Your task to perform on an android device: turn on javascript in the chrome app Image 0: 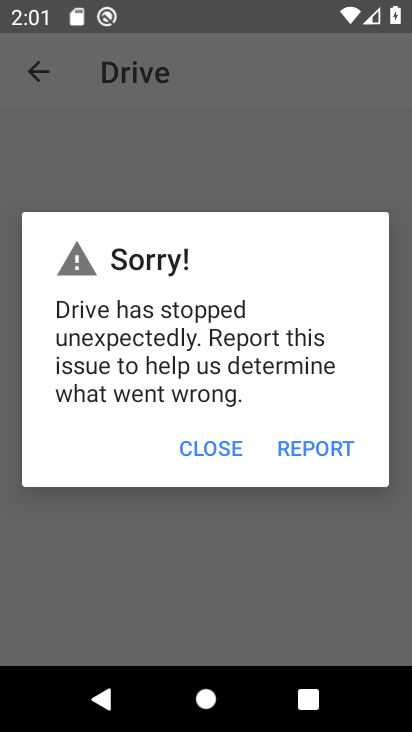
Step 0: press home button
Your task to perform on an android device: turn on javascript in the chrome app Image 1: 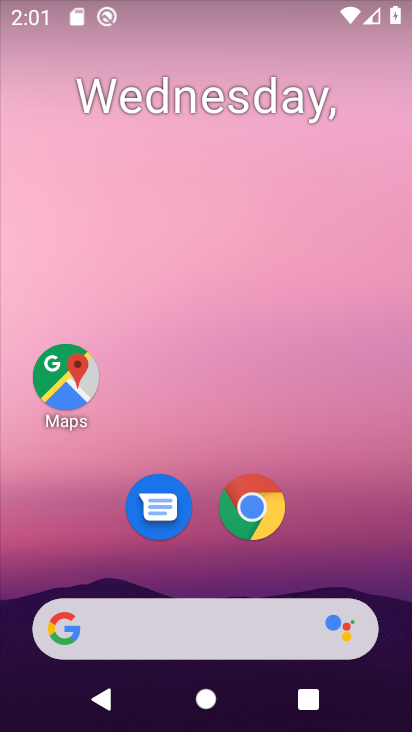
Step 1: click (240, 519)
Your task to perform on an android device: turn on javascript in the chrome app Image 2: 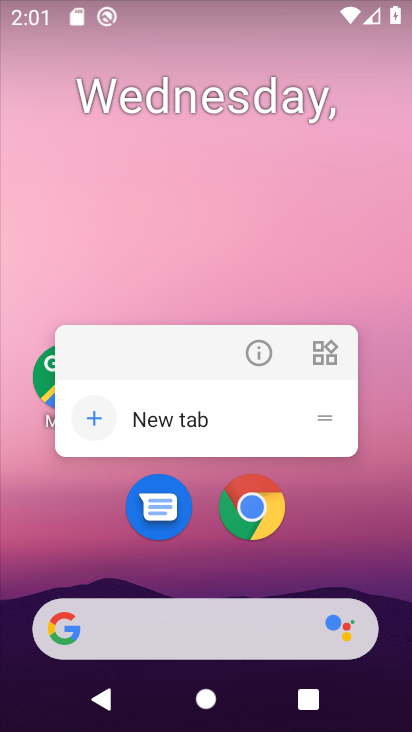
Step 2: click (266, 519)
Your task to perform on an android device: turn on javascript in the chrome app Image 3: 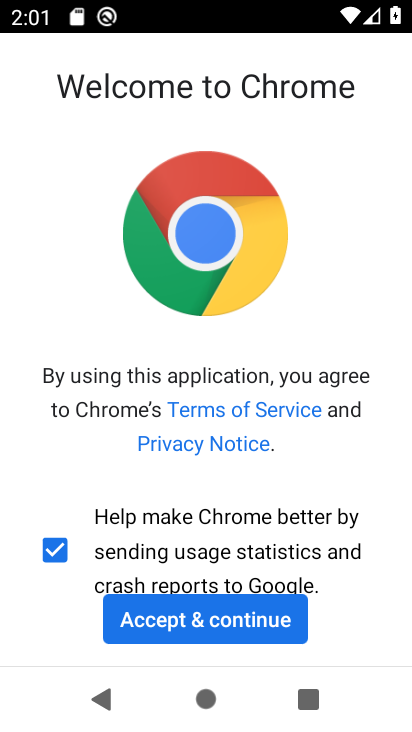
Step 3: click (234, 611)
Your task to perform on an android device: turn on javascript in the chrome app Image 4: 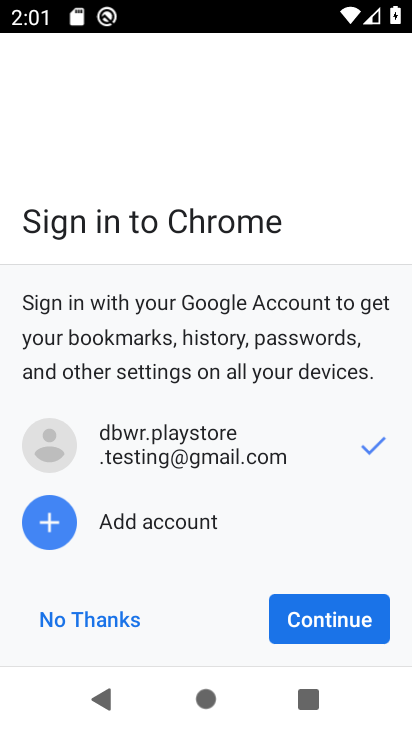
Step 4: click (334, 632)
Your task to perform on an android device: turn on javascript in the chrome app Image 5: 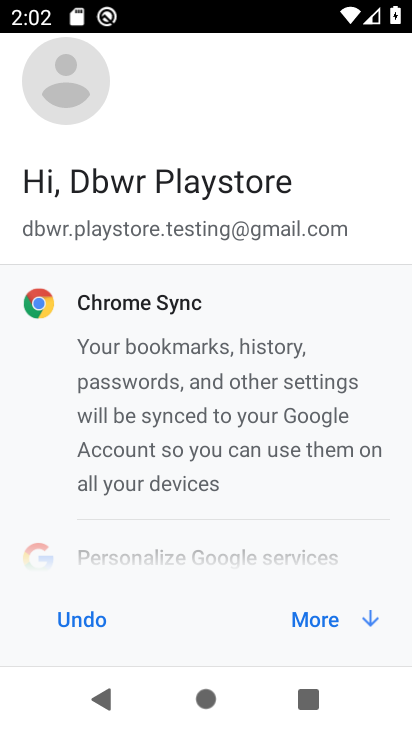
Step 5: click (334, 630)
Your task to perform on an android device: turn on javascript in the chrome app Image 6: 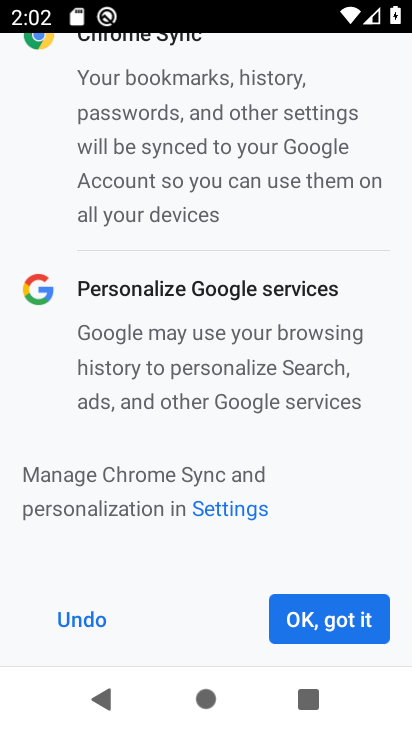
Step 6: click (334, 630)
Your task to perform on an android device: turn on javascript in the chrome app Image 7: 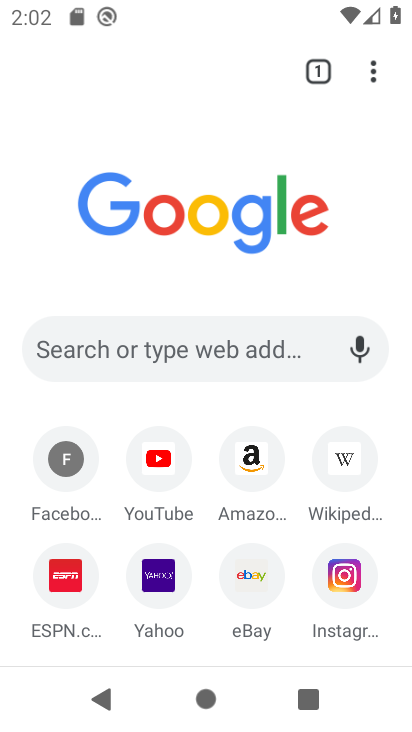
Step 7: drag from (376, 76) to (234, 520)
Your task to perform on an android device: turn on javascript in the chrome app Image 8: 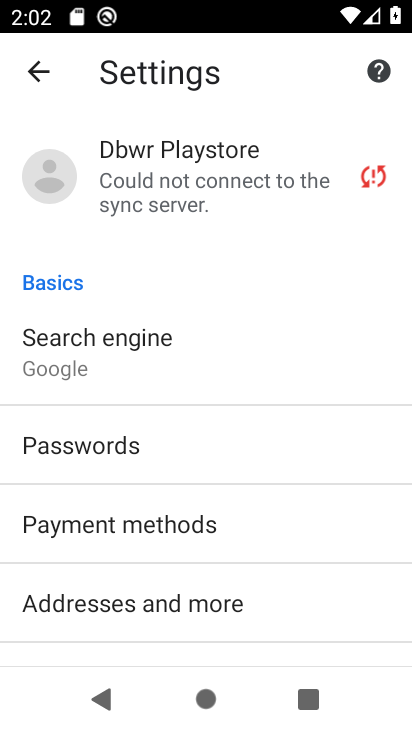
Step 8: drag from (193, 617) to (275, 215)
Your task to perform on an android device: turn on javascript in the chrome app Image 9: 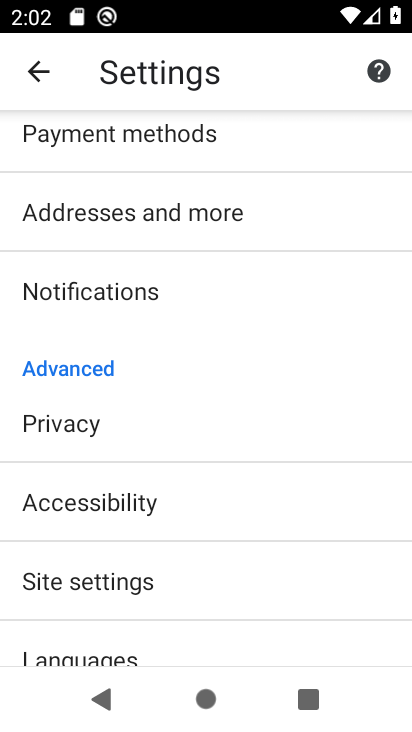
Step 9: click (180, 598)
Your task to perform on an android device: turn on javascript in the chrome app Image 10: 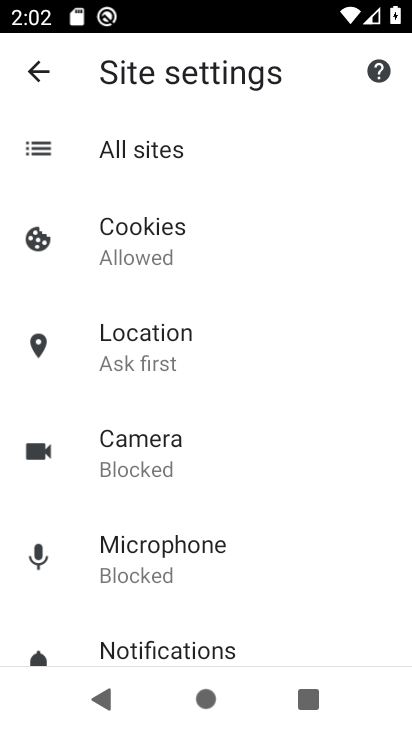
Step 10: drag from (204, 600) to (272, 299)
Your task to perform on an android device: turn on javascript in the chrome app Image 11: 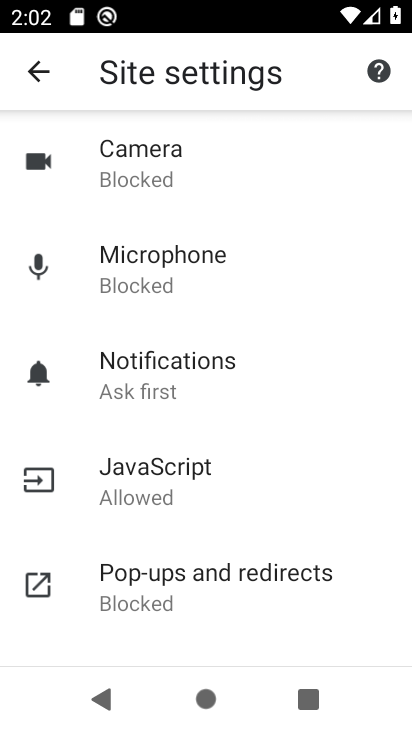
Step 11: click (245, 480)
Your task to perform on an android device: turn on javascript in the chrome app Image 12: 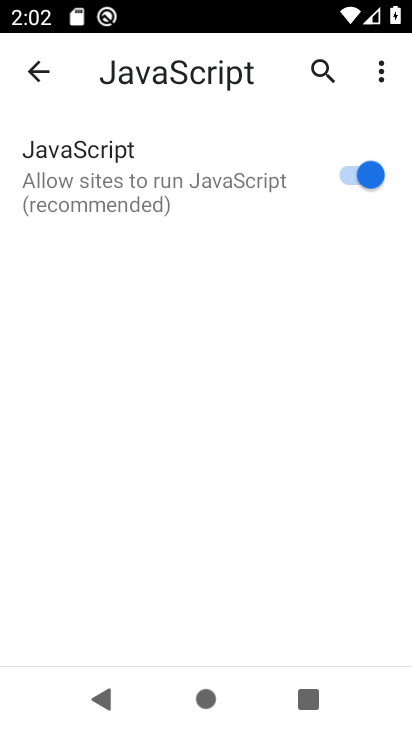
Step 12: task complete